Your task to perform on an android device: Open Chrome and go to the settings page Image 0: 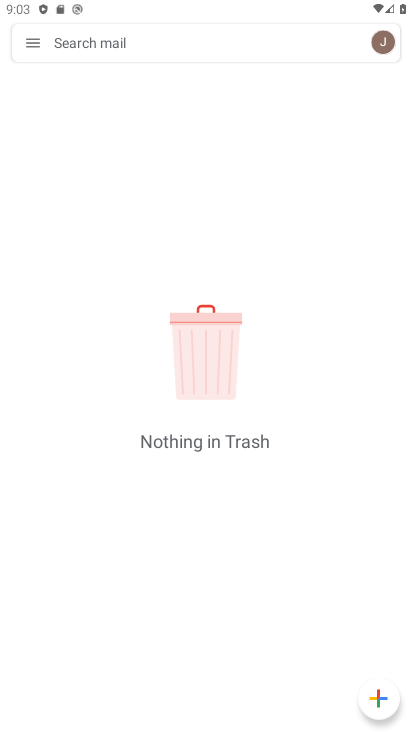
Step 0: press home button
Your task to perform on an android device: Open Chrome and go to the settings page Image 1: 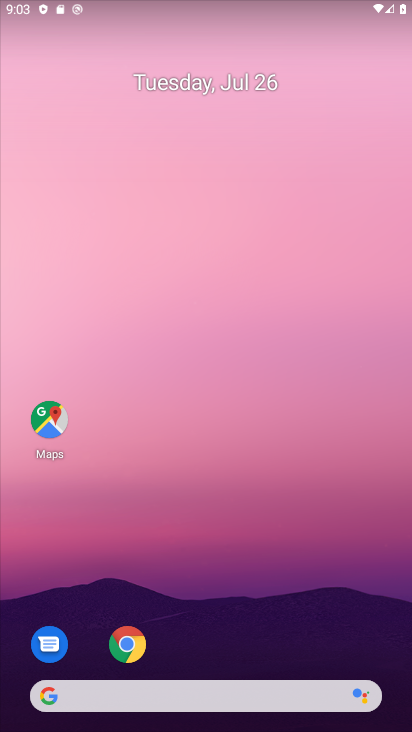
Step 1: click (143, 650)
Your task to perform on an android device: Open Chrome and go to the settings page Image 2: 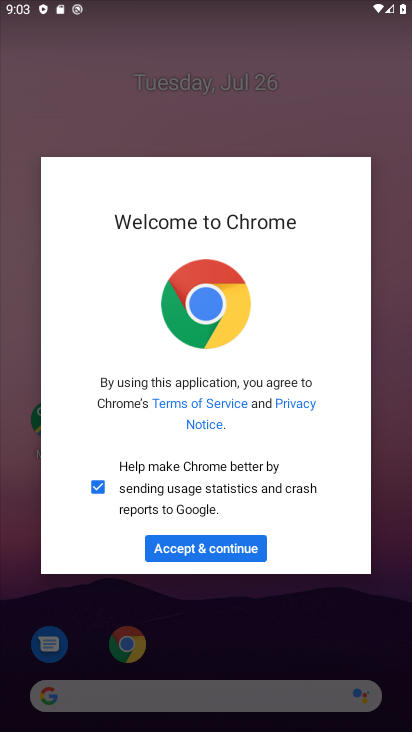
Step 2: click (201, 543)
Your task to perform on an android device: Open Chrome and go to the settings page Image 3: 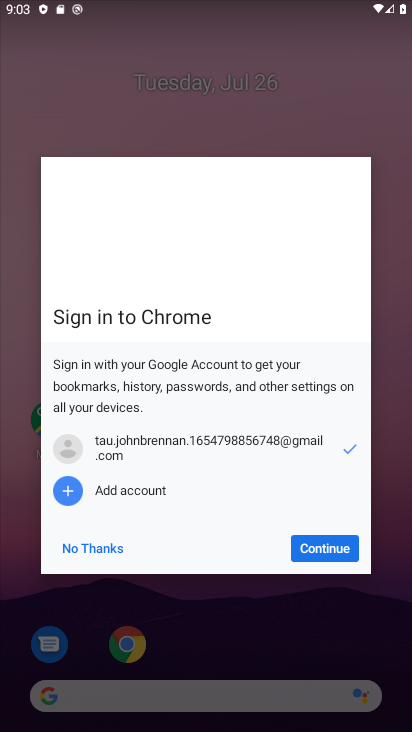
Step 3: click (341, 551)
Your task to perform on an android device: Open Chrome and go to the settings page Image 4: 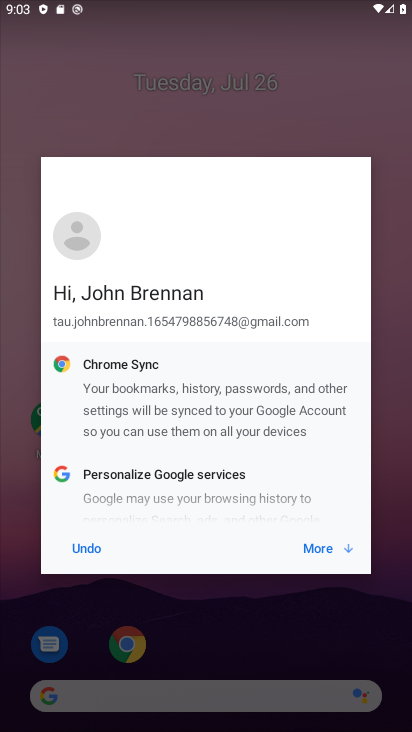
Step 4: click (340, 550)
Your task to perform on an android device: Open Chrome and go to the settings page Image 5: 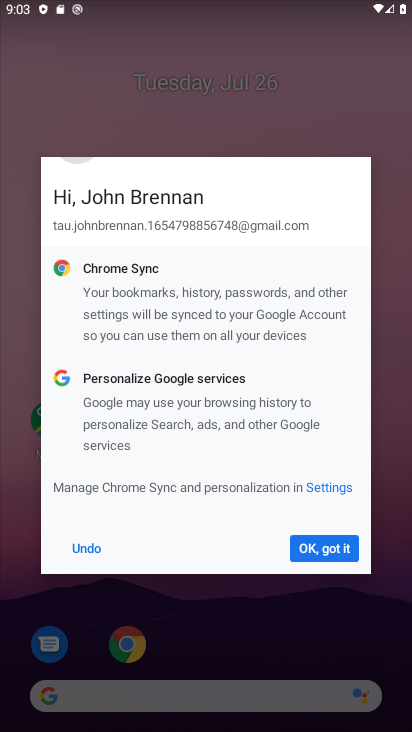
Step 5: click (340, 550)
Your task to perform on an android device: Open Chrome and go to the settings page Image 6: 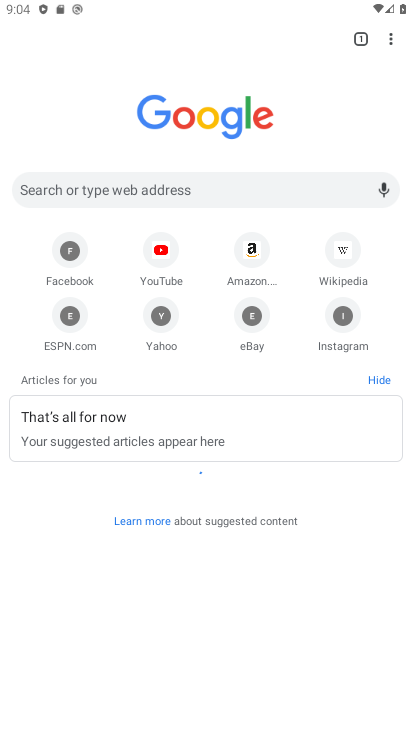
Step 6: click (393, 44)
Your task to perform on an android device: Open Chrome and go to the settings page Image 7: 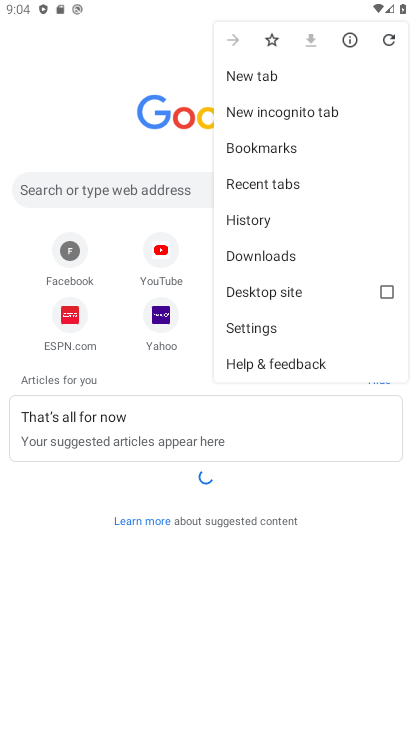
Step 7: click (260, 330)
Your task to perform on an android device: Open Chrome and go to the settings page Image 8: 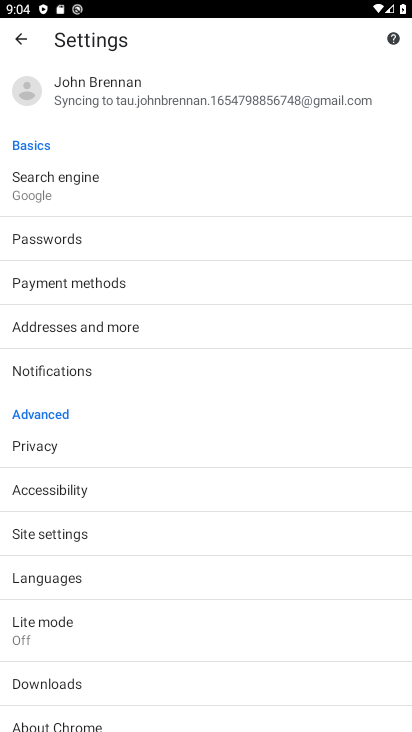
Step 8: task complete